Your task to perform on an android device: Open Youtube and go to the subscriptions tab Image 0: 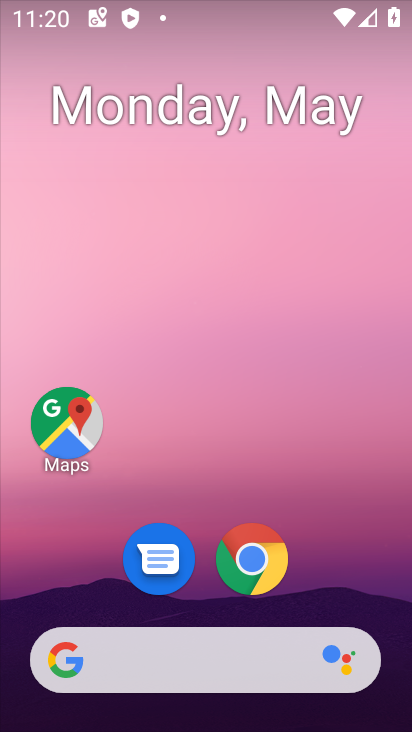
Step 0: drag from (336, 567) to (269, 67)
Your task to perform on an android device: Open Youtube and go to the subscriptions tab Image 1: 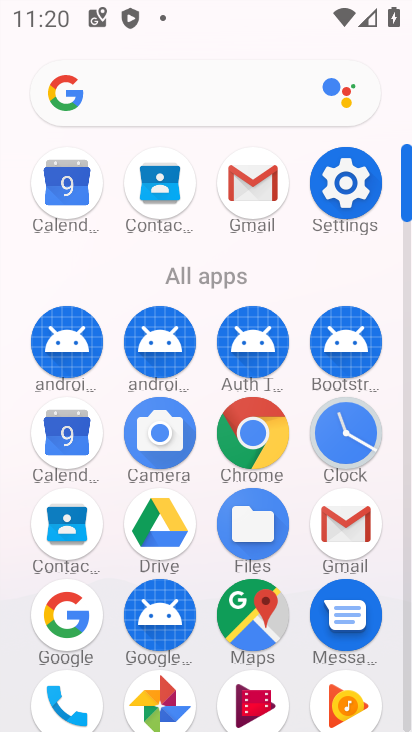
Step 1: click (407, 696)
Your task to perform on an android device: Open Youtube and go to the subscriptions tab Image 2: 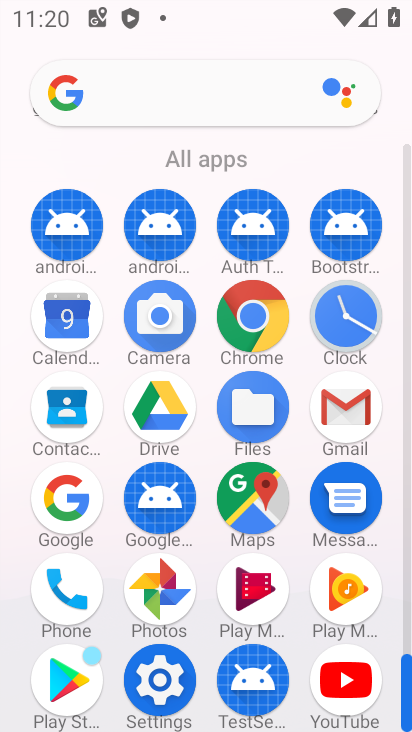
Step 2: click (328, 708)
Your task to perform on an android device: Open Youtube and go to the subscriptions tab Image 3: 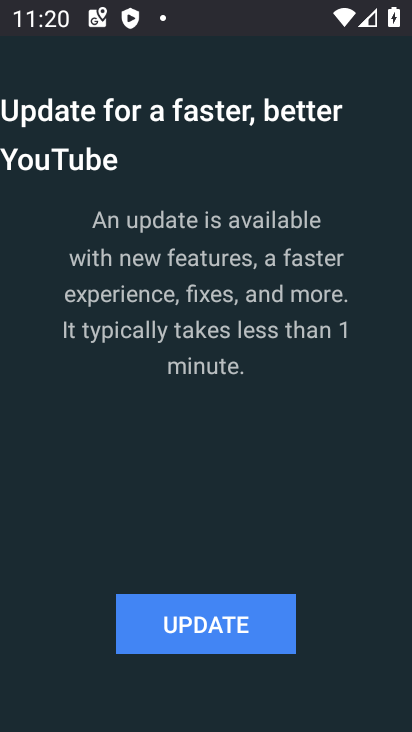
Step 3: click (270, 635)
Your task to perform on an android device: Open Youtube and go to the subscriptions tab Image 4: 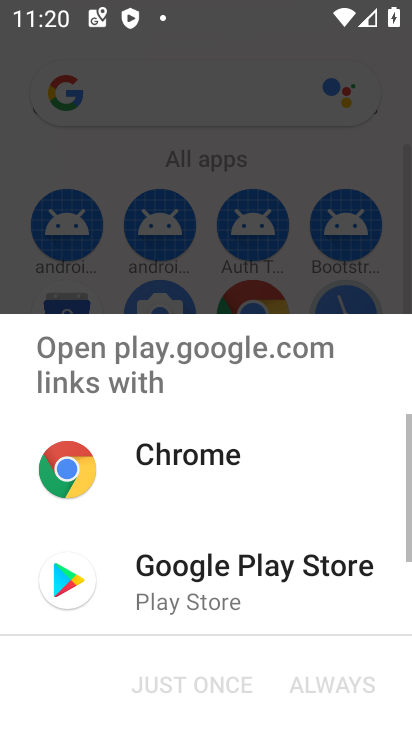
Step 4: click (139, 594)
Your task to perform on an android device: Open Youtube and go to the subscriptions tab Image 5: 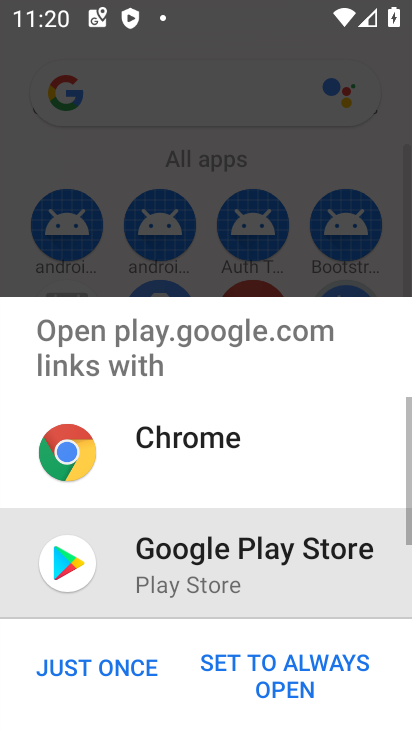
Step 5: click (159, 701)
Your task to perform on an android device: Open Youtube and go to the subscriptions tab Image 6: 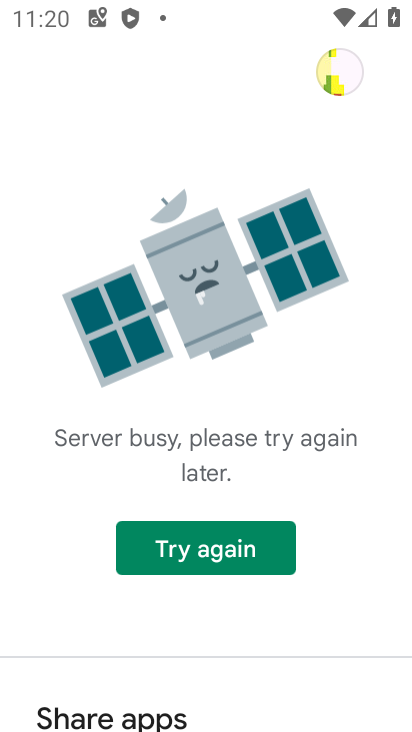
Step 6: task complete